Your task to perform on an android device: toggle priority inbox in the gmail app Image 0: 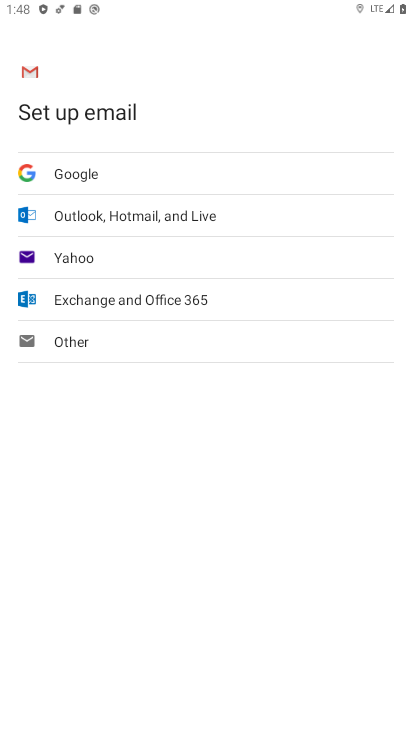
Step 0: press home button
Your task to perform on an android device: toggle priority inbox in the gmail app Image 1: 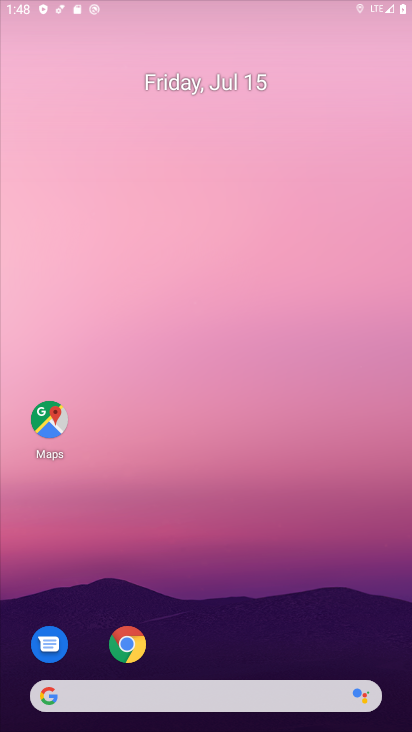
Step 1: drag from (381, 635) to (327, 83)
Your task to perform on an android device: toggle priority inbox in the gmail app Image 2: 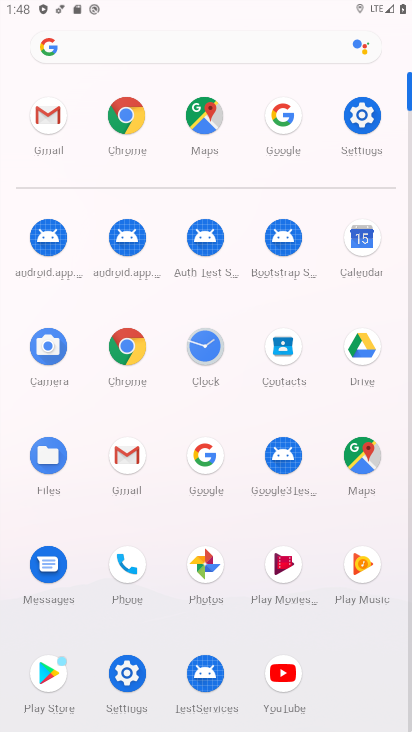
Step 2: click (122, 458)
Your task to perform on an android device: toggle priority inbox in the gmail app Image 3: 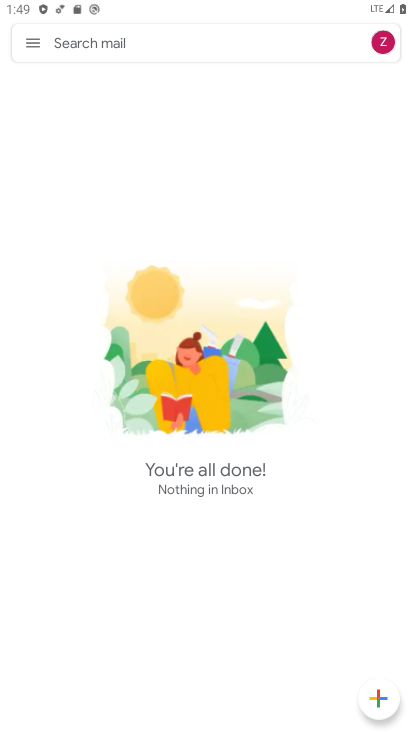
Step 3: click (30, 39)
Your task to perform on an android device: toggle priority inbox in the gmail app Image 4: 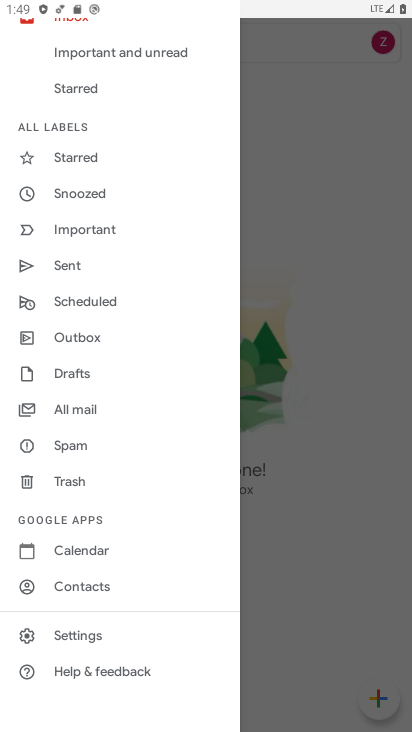
Step 4: click (75, 638)
Your task to perform on an android device: toggle priority inbox in the gmail app Image 5: 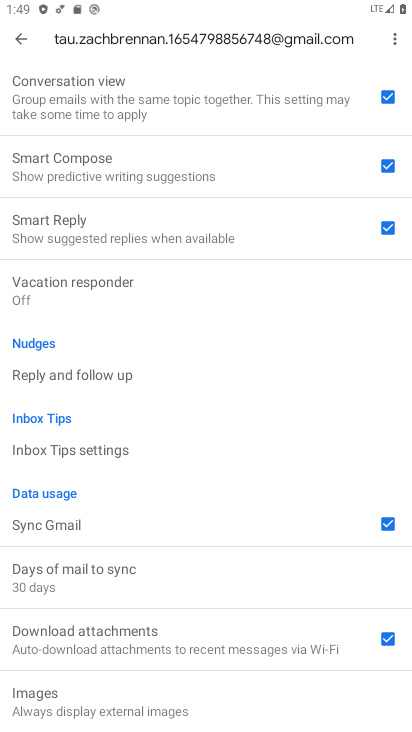
Step 5: drag from (160, 175) to (233, 708)
Your task to perform on an android device: toggle priority inbox in the gmail app Image 6: 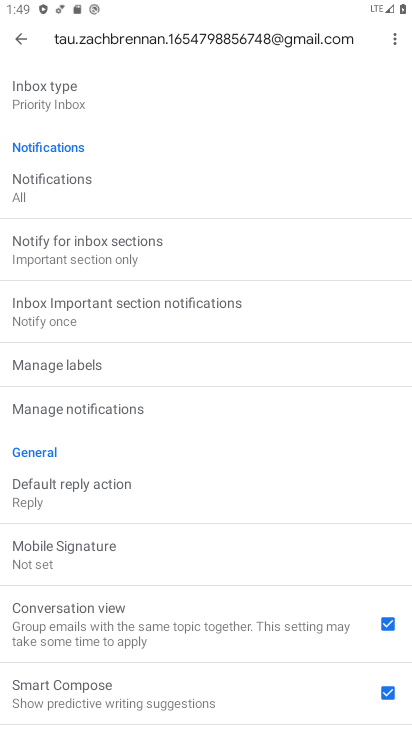
Step 6: drag from (149, 145) to (246, 664)
Your task to perform on an android device: toggle priority inbox in the gmail app Image 7: 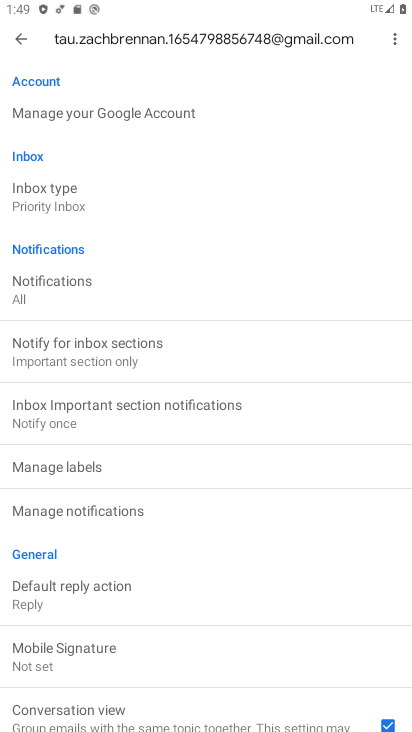
Step 7: click (116, 203)
Your task to perform on an android device: toggle priority inbox in the gmail app Image 8: 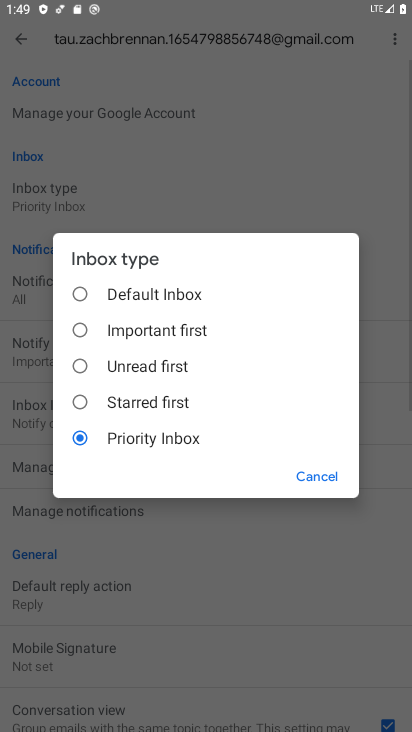
Step 8: click (100, 299)
Your task to perform on an android device: toggle priority inbox in the gmail app Image 9: 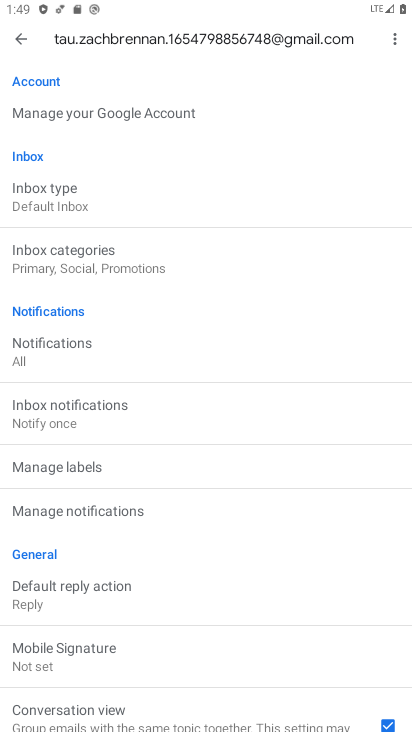
Step 9: task complete